Your task to perform on an android device: turn on wifi Image 0: 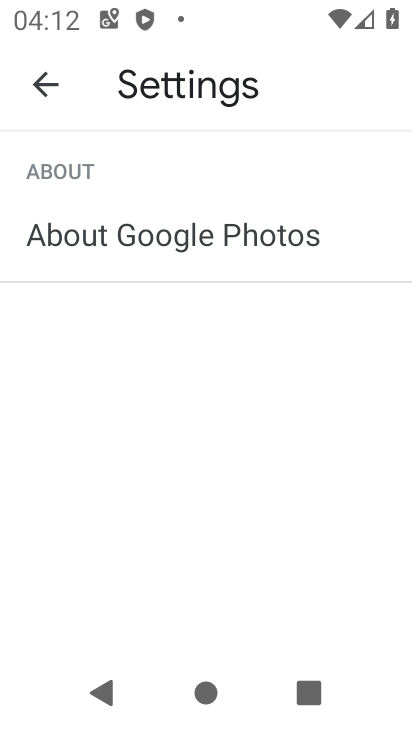
Step 0: press home button
Your task to perform on an android device: turn on wifi Image 1: 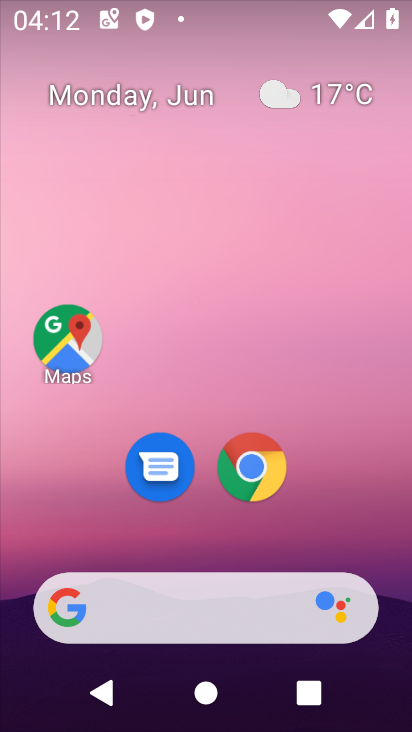
Step 1: drag from (186, 458) to (266, 6)
Your task to perform on an android device: turn on wifi Image 2: 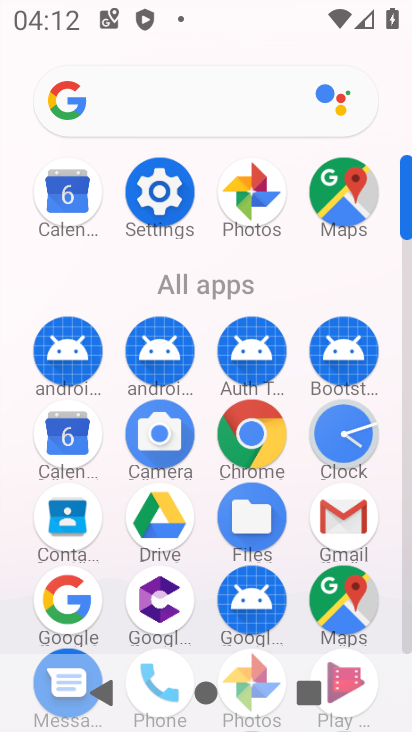
Step 2: click (165, 208)
Your task to perform on an android device: turn on wifi Image 3: 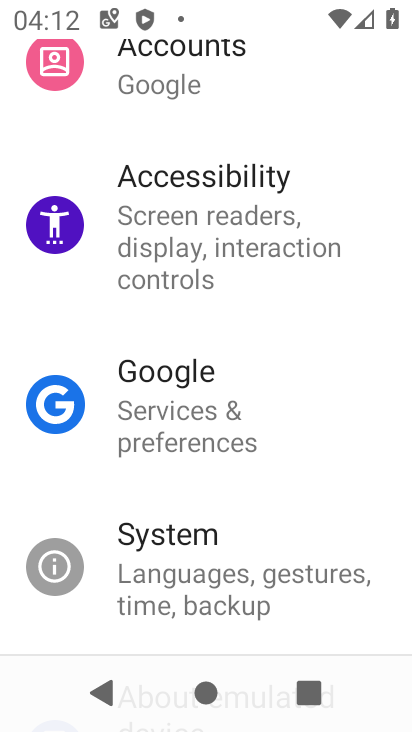
Step 3: drag from (228, 208) to (210, 637)
Your task to perform on an android device: turn on wifi Image 4: 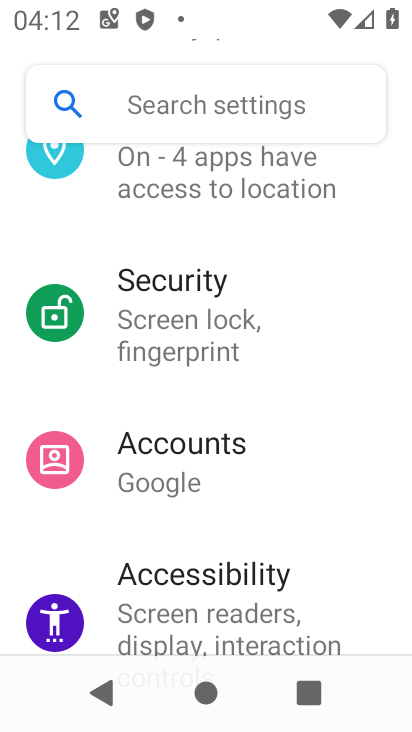
Step 4: drag from (239, 212) to (242, 290)
Your task to perform on an android device: turn on wifi Image 5: 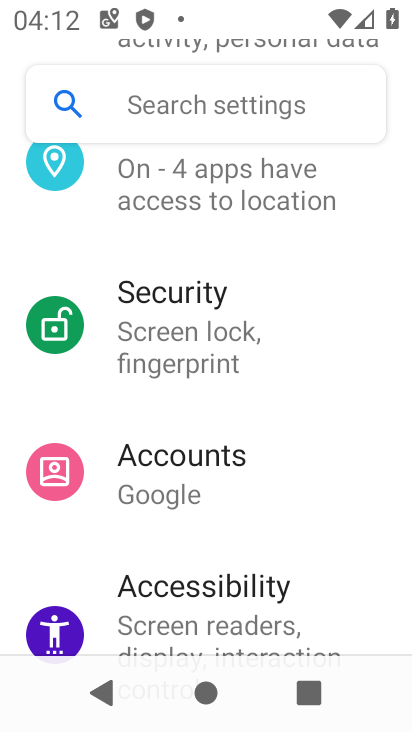
Step 5: drag from (210, 218) to (215, 521)
Your task to perform on an android device: turn on wifi Image 6: 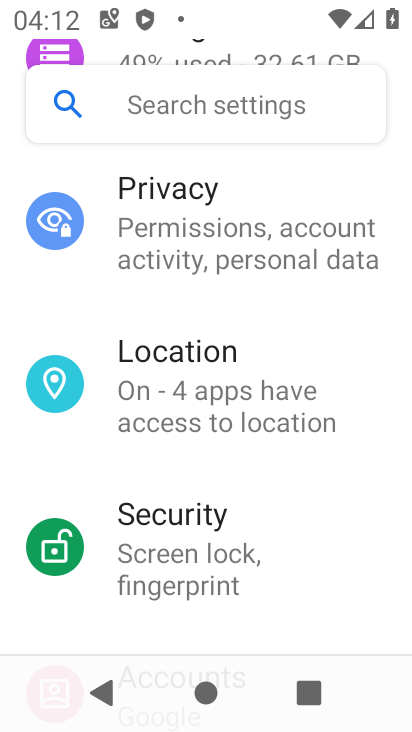
Step 6: drag from (239, 213) to (232, 636)
Your task to perform on an android device: turn on wifi Image 7: 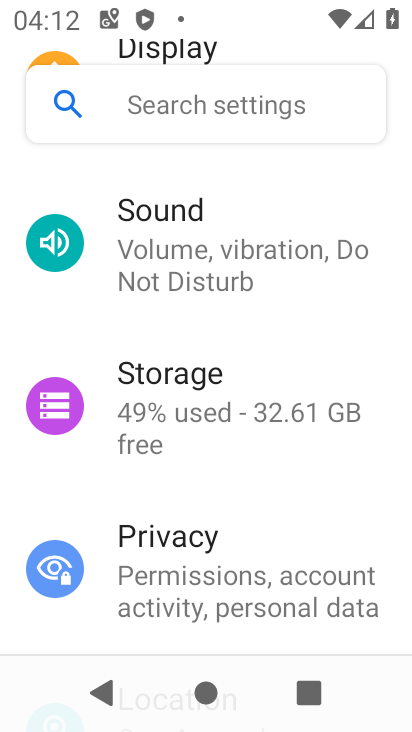
Step 7: drag from (227, 209) to (240, 521)
Your task to perform on an android device: turn on wifi Image 8: 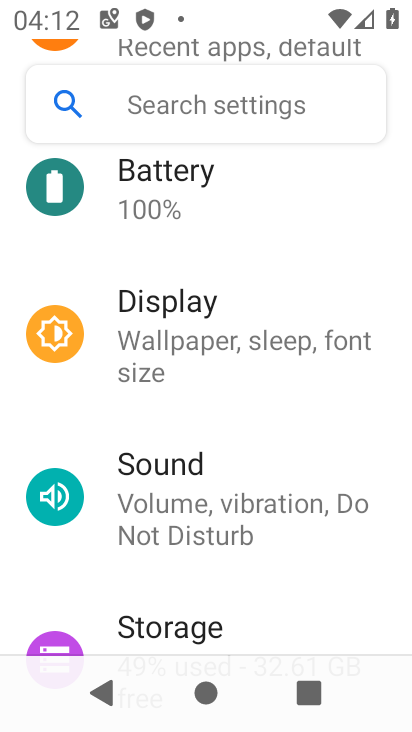
Step 8: drag from (185, 210) to (190, 513)
Your task to perform on an android device: turn on wifi Image 9: 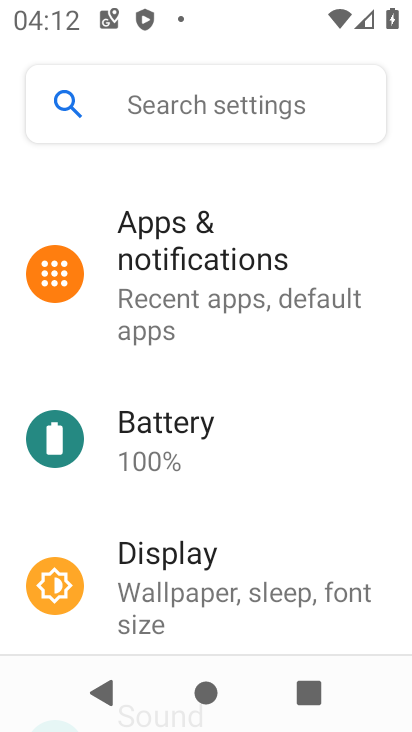
Step 9: drag from (234, 253) to (260, 687)
Your task to perform on an android device: turn on wifi Image 10: 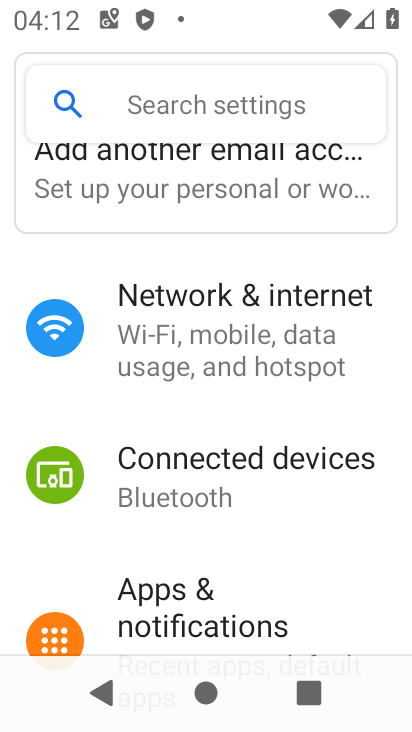
Step 10: click (243, 366)
Your task to perform on an android device: turn on wifi Image 11: 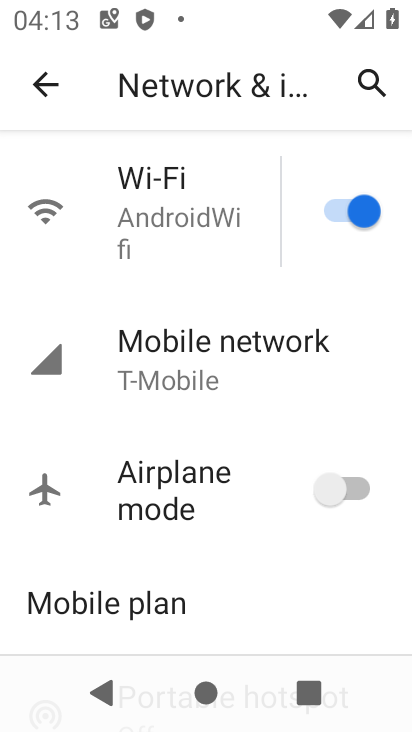
Step 11: task complete